Your task to perform on an android device: change the clock style Image 0: 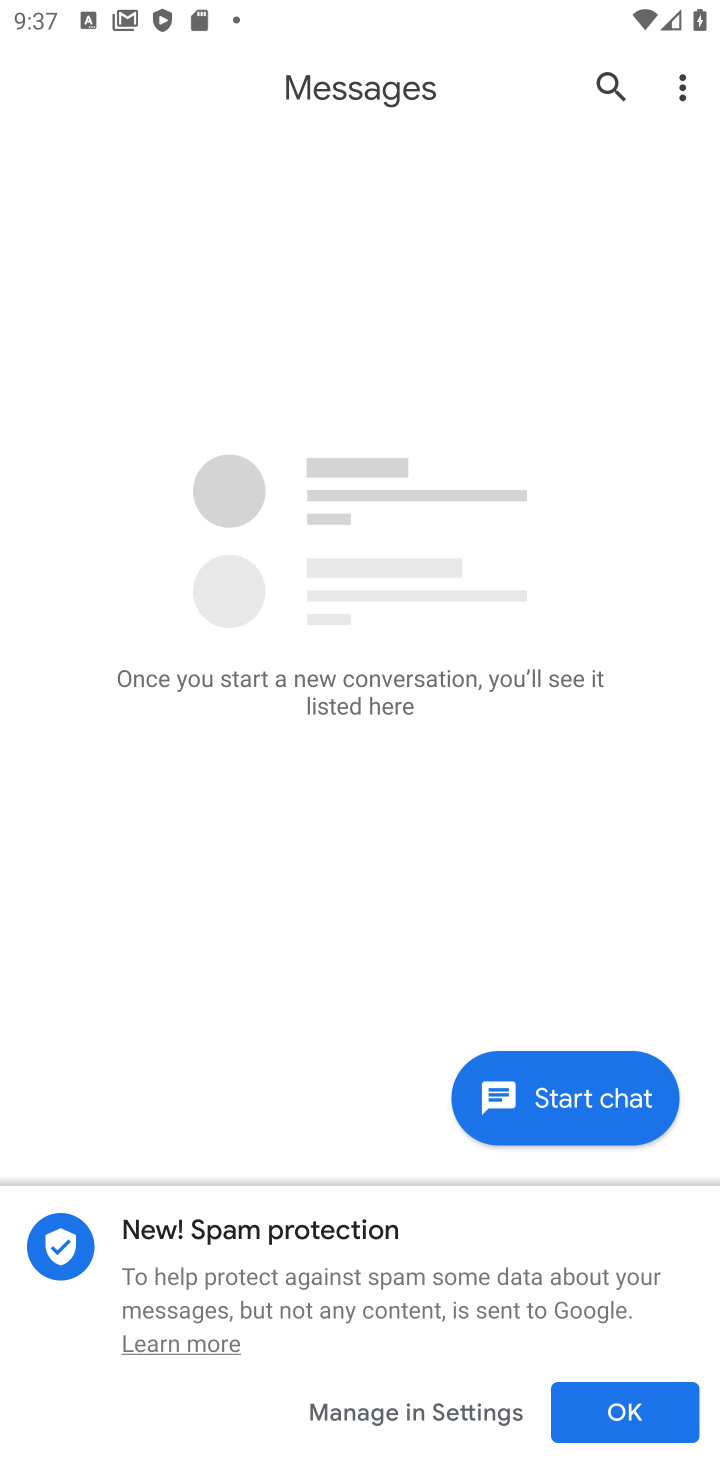
Step 0: press home button
Your task to perform on an android device: change the clock style Image 1: 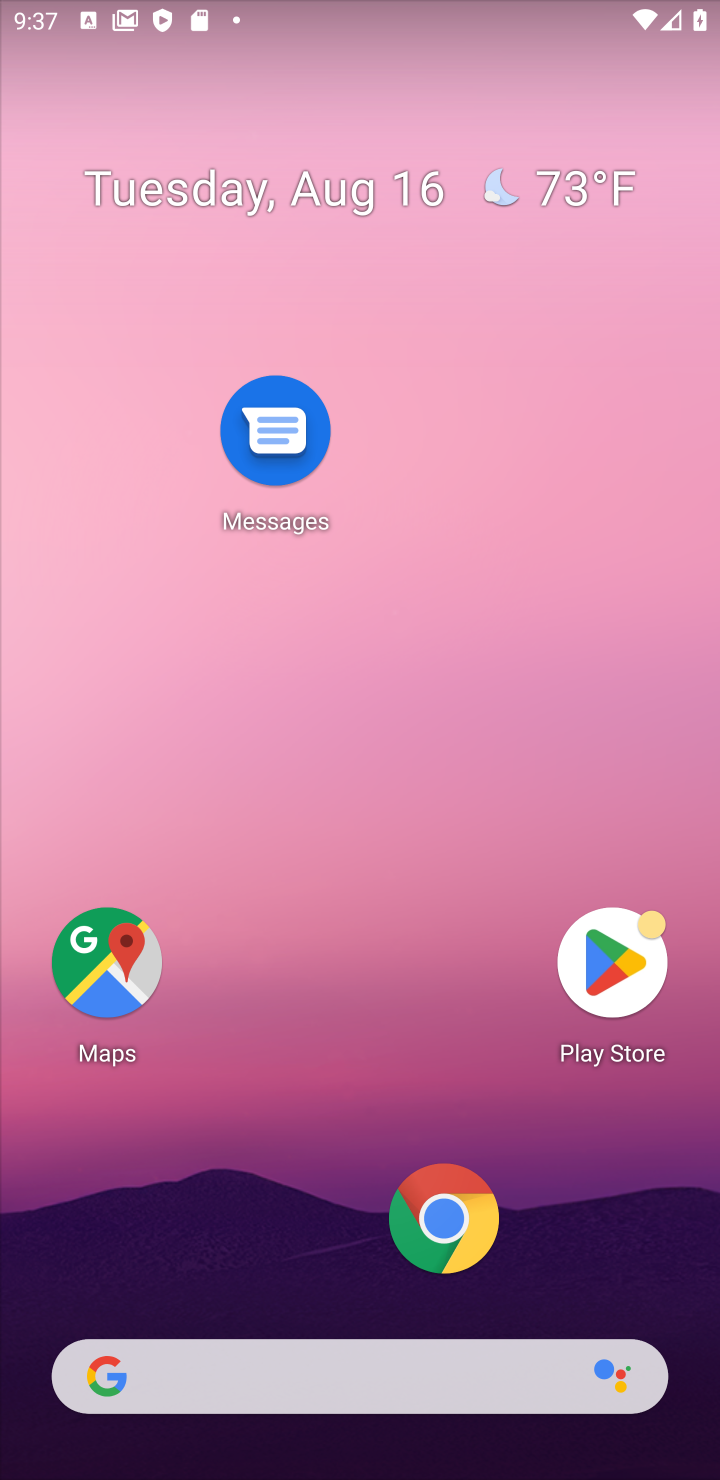
Step 1: drag from (297, 1276) to (569, 129)
Your task to perform on an android device: change the clock style Image 2: 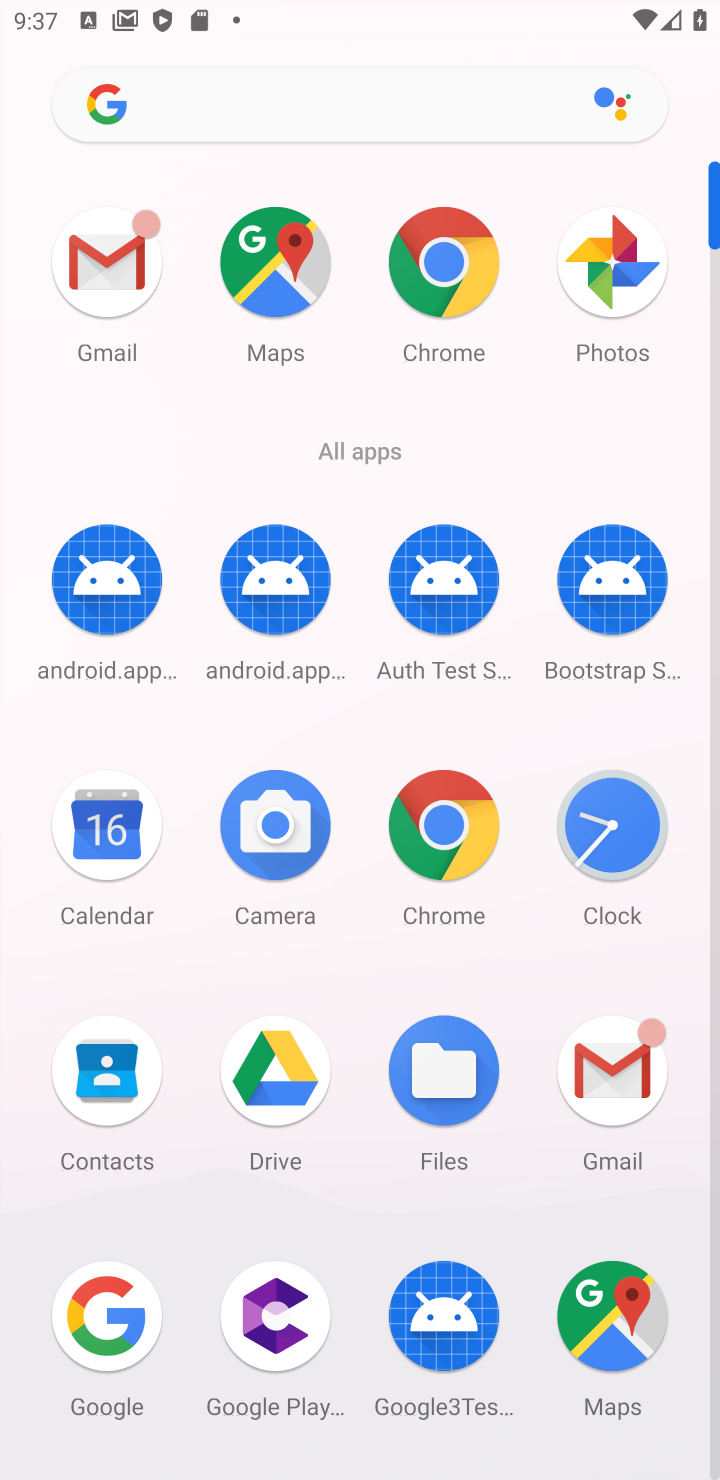
Step 2: click (637, 802)
Your task to perform on an android device: change the clock style Image 3: 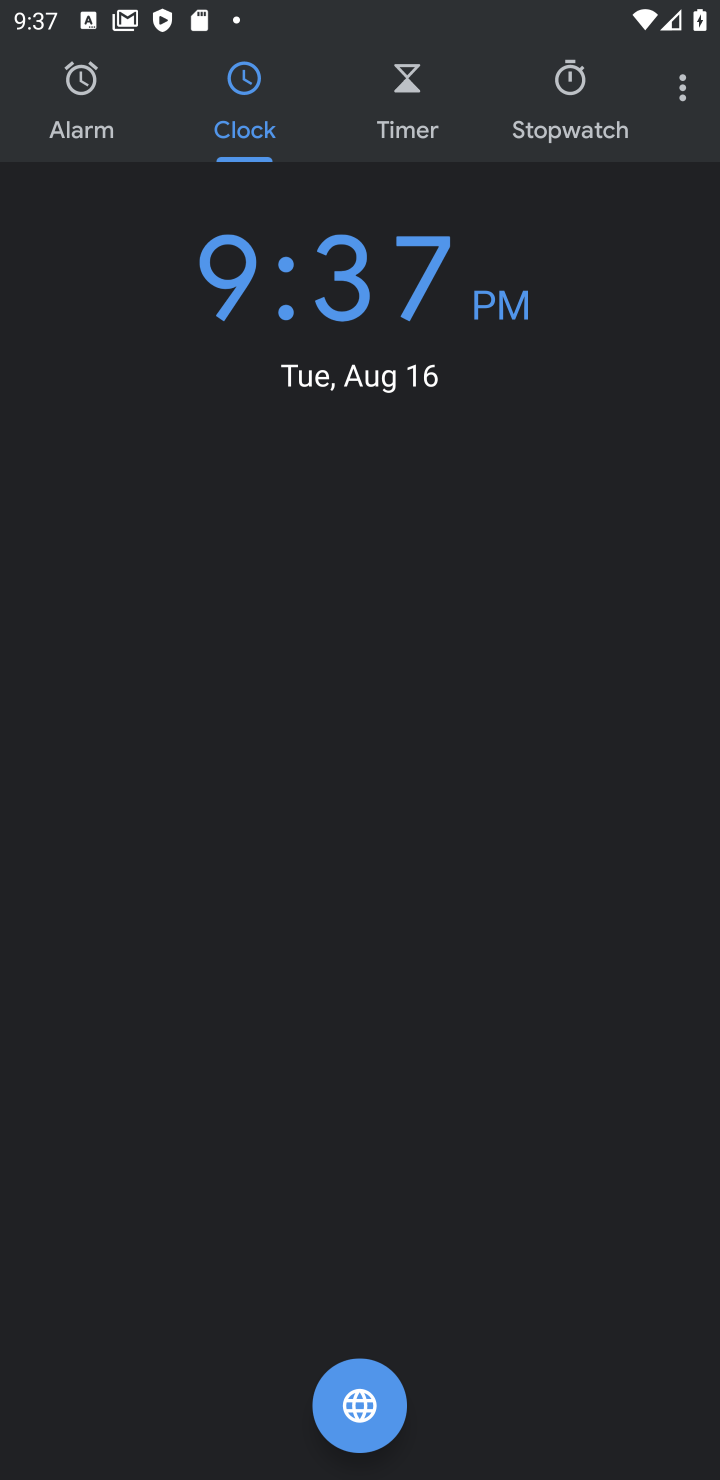
Step 3: click (694, 85)
Your task to perform on an android device: change the clock style Image 4: 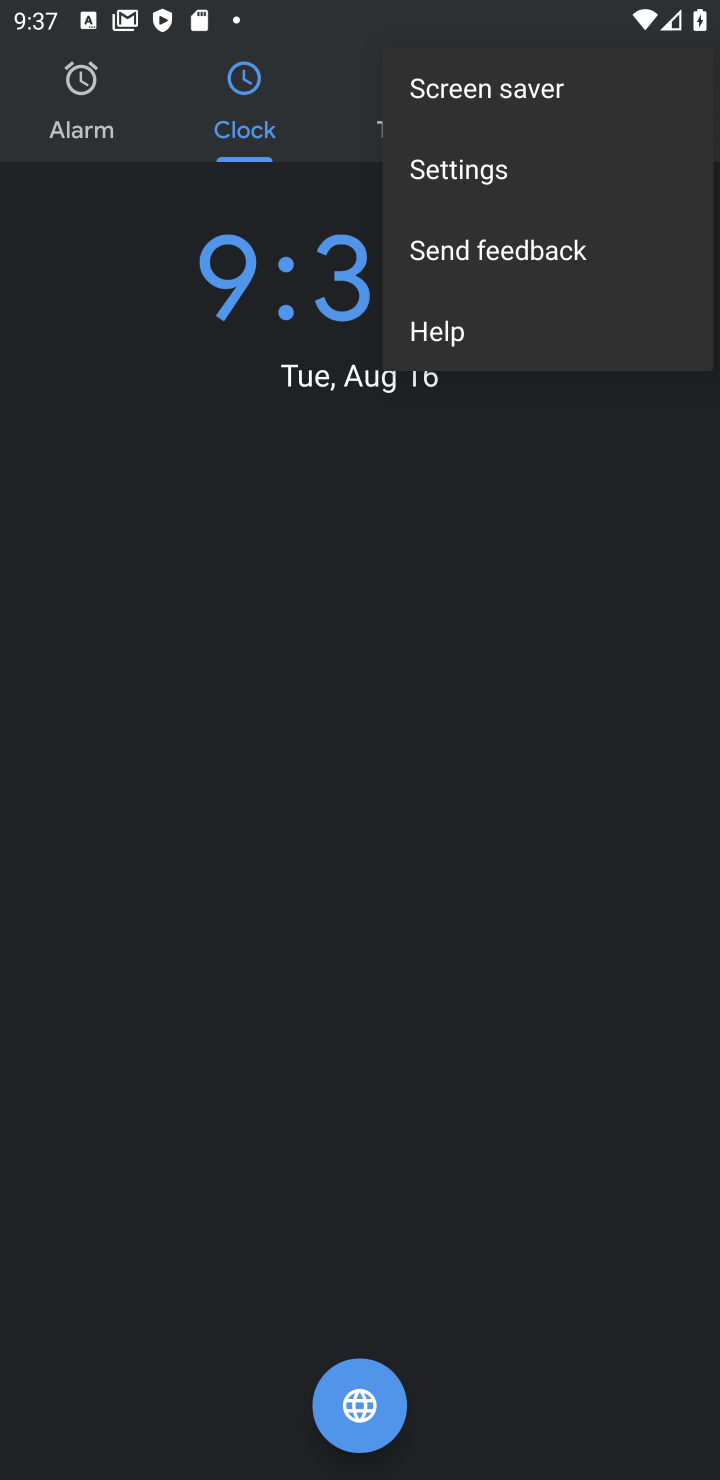
Step 4: click (515, 179)
Your task to perform on an android device: change the clock style Image 5: 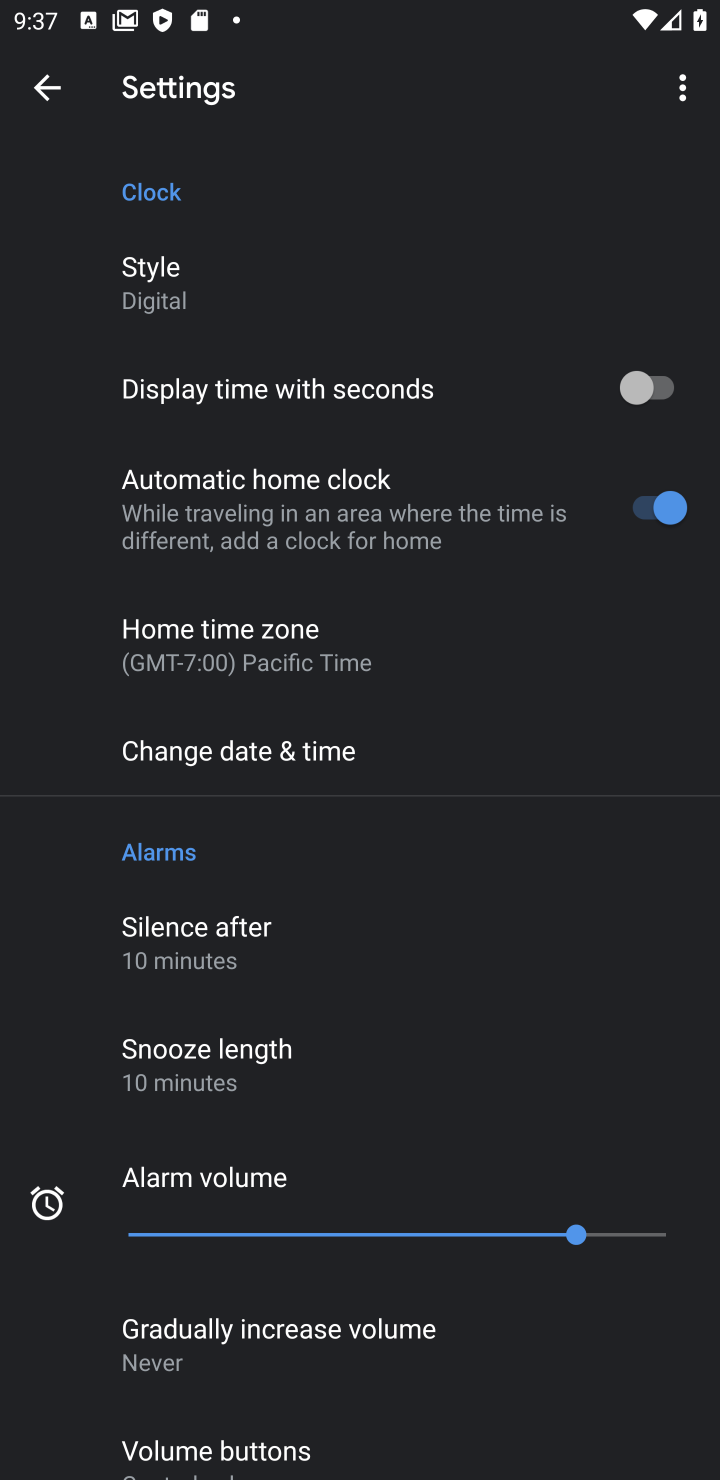
Step 5: click (193, 285)
Your task to perform on an android device: change the clock style Image 6: 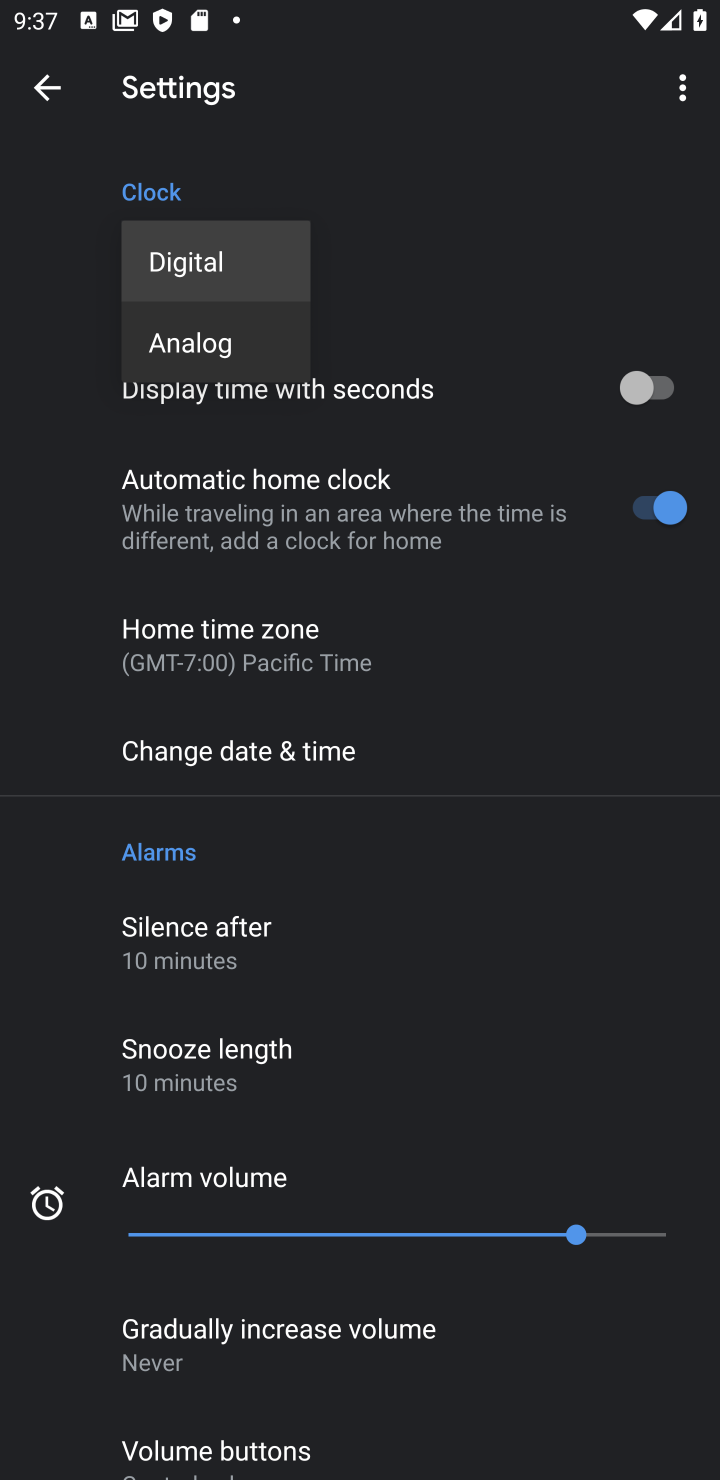
Step 6: click (198, 368)
Your task to perform on an android device: change the clock style Image 7: 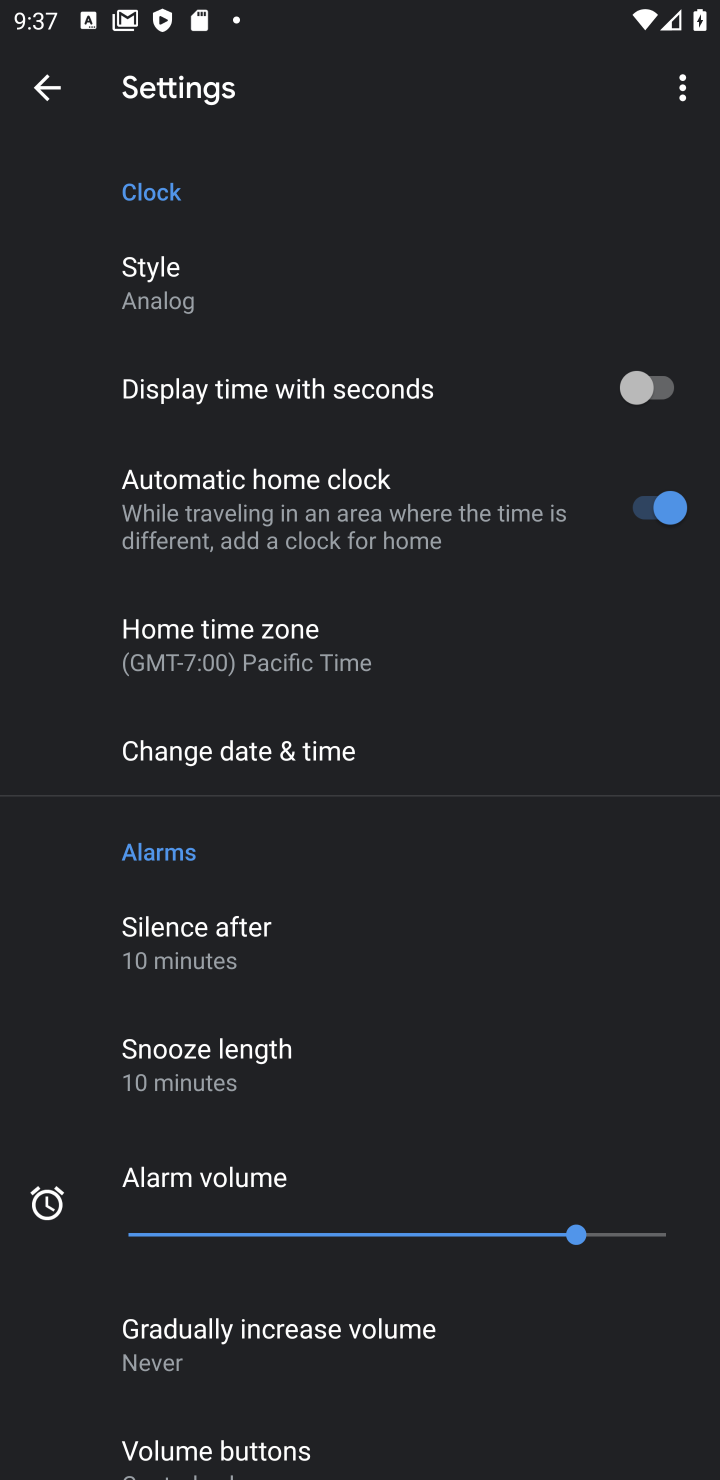
Step 7: task complete